Your task to perform on an android device: Open the calendar app, open the side menu, and click the "Day" option Image 0: 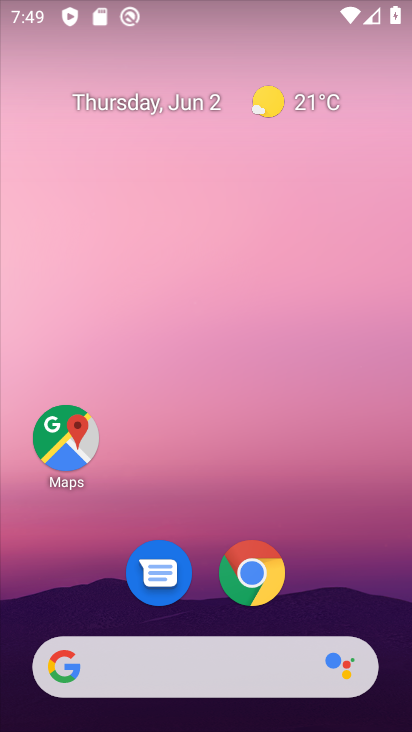
Step 0: drag from (325, 579) to (305, 193)
Your task to perform on an android device: Open the calendar app, open the side menu, and click the "Day" option Image 1: 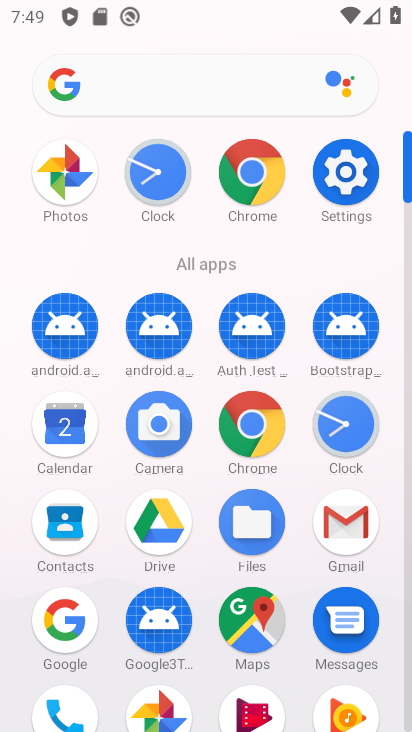
Step 1: click (63, 423)
Your task to perform on an android device: Open the calendar app, open the side menu, and click the "Day" option Image 2: 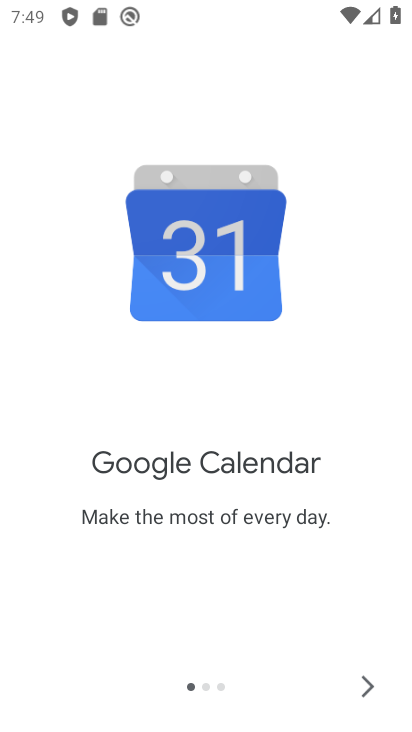
Step 2: click (383, 683)
Your task to perform on an android device: Open the calendar app, open the side menu, and click the "Day" option Image 3: 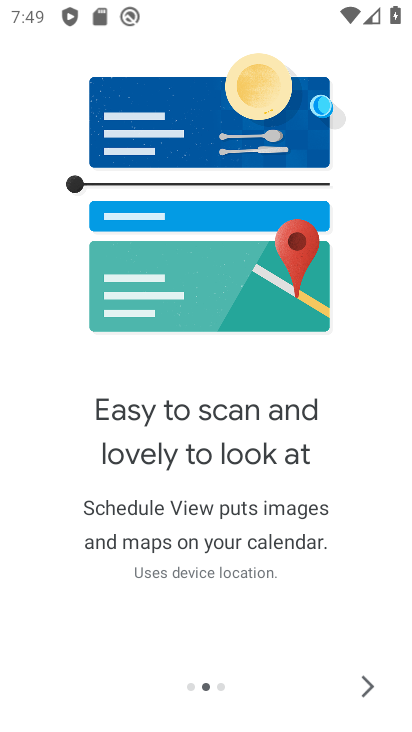
Step 3: click (383, 683)
Your task to perform on an android device: Open the calendar app, open the side menu, and click the "Day" option Image 4: 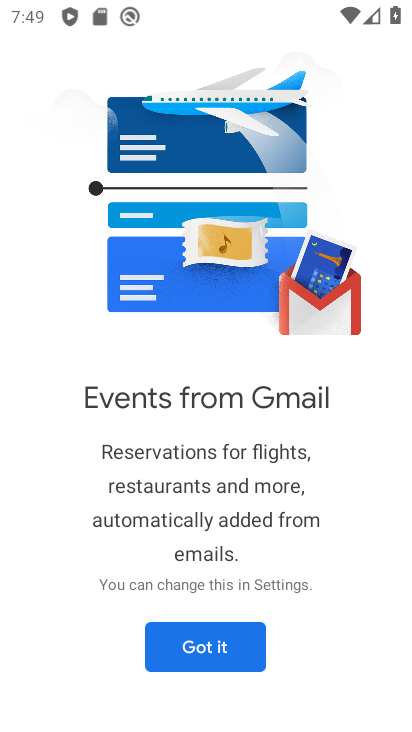
Step 4: click (383, 683)
Your task to perform on an android device: Open the calendar app, open the side menu, and click the "Day" option Image 5: 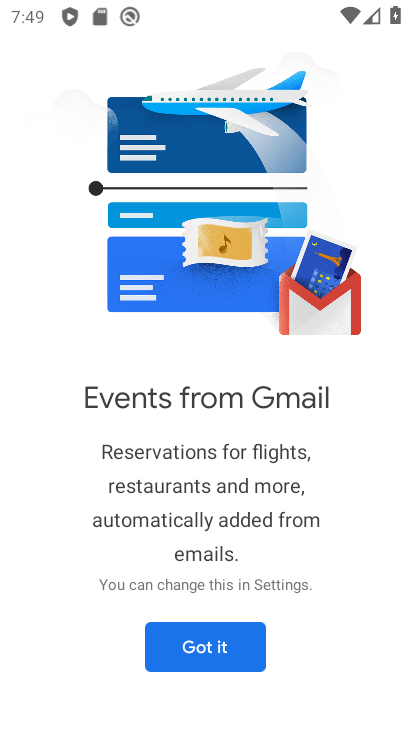
Step 5: click (216, 636)
Your task to perform on an android device: Open the calendar app, open the side menu, and click the "Day" option Image 6: 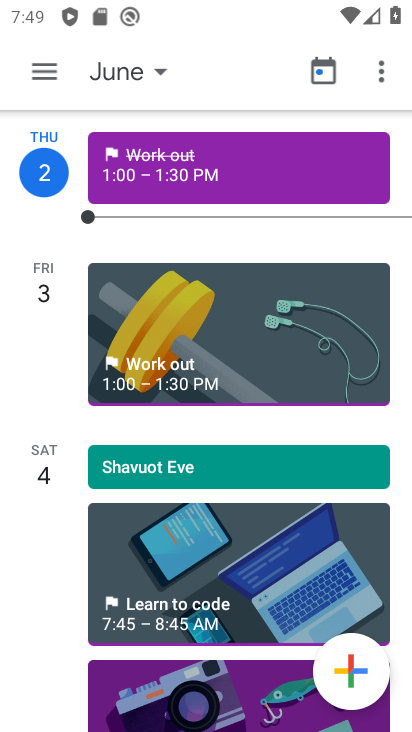
Step 6: click (48, 70)
Your task to perform on an android device: Open the calendar app, open the side menu, and click the "Day" option Image 7: 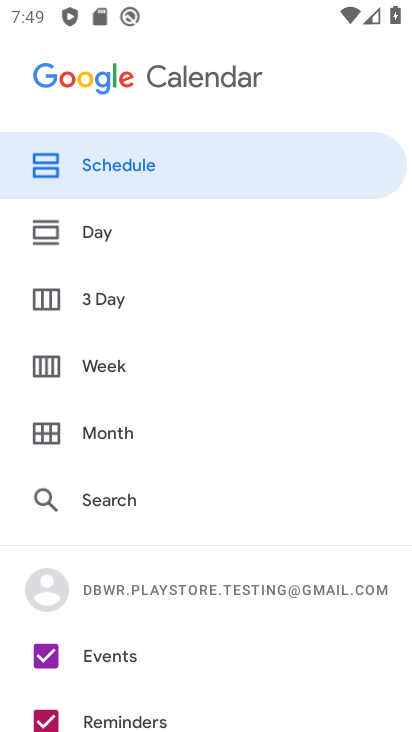
Step 7: click (136, 238)
Your task to perform on an android device: Open the calendar app, open the side menu, and click the "Day" option Image 8: 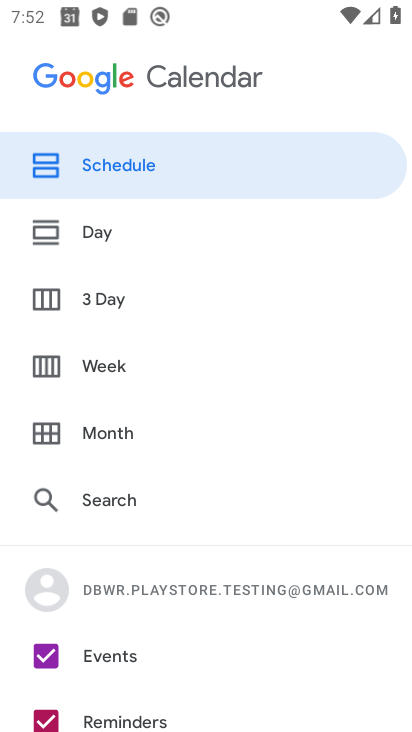
Step 8: task complete